Your task to perform on an android device: Open Google Maps Image 0: 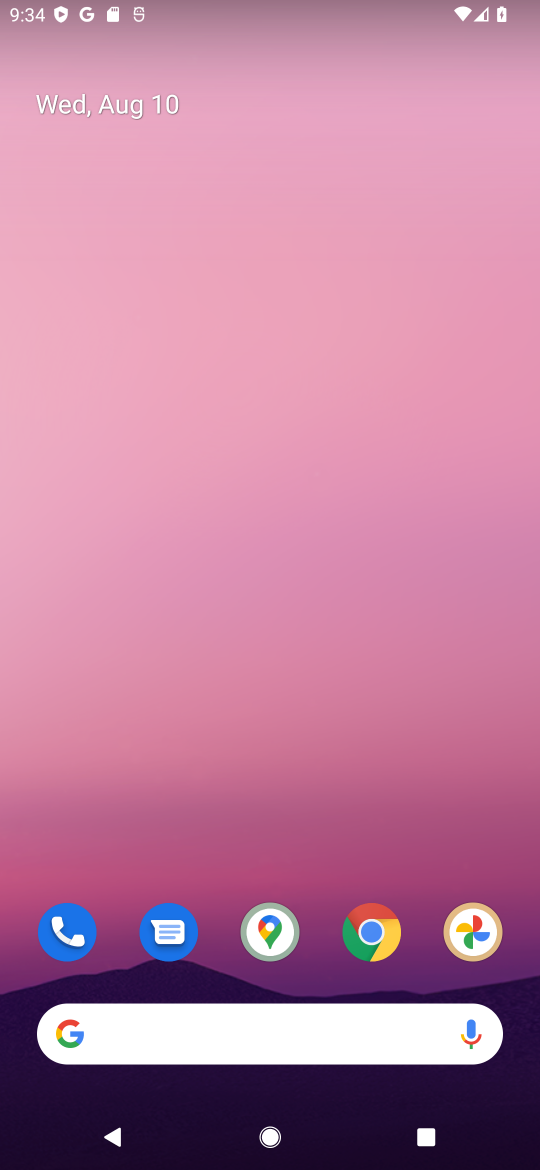
Step 0: click (270, 925)
Your task to perform on an android device: Open Google Maps Image 1: 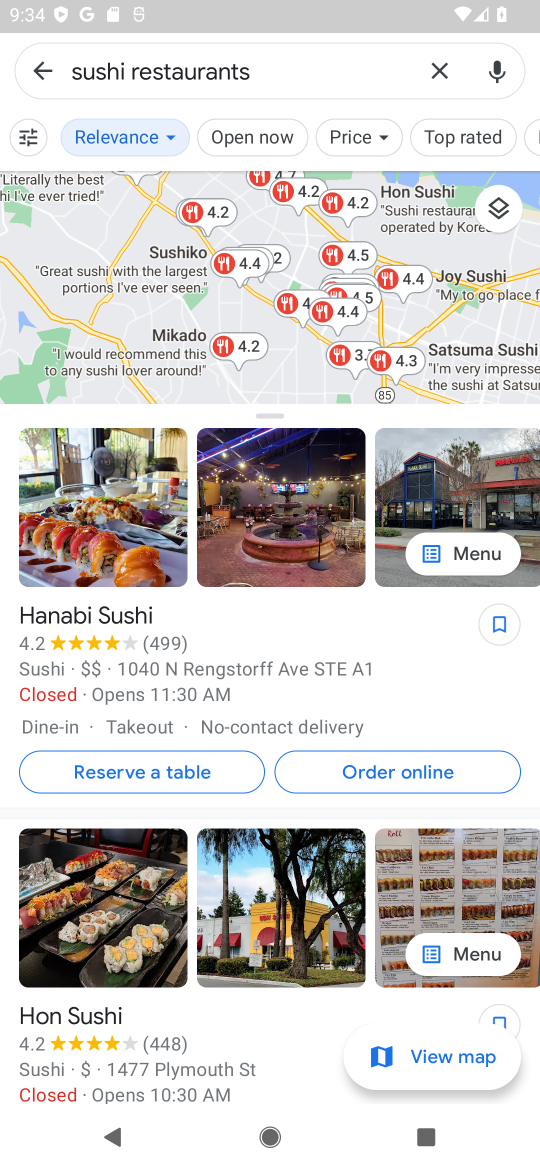
Step 1: click (35, 64)
Your task to perform on an android device: Open Google Maps Image 2: 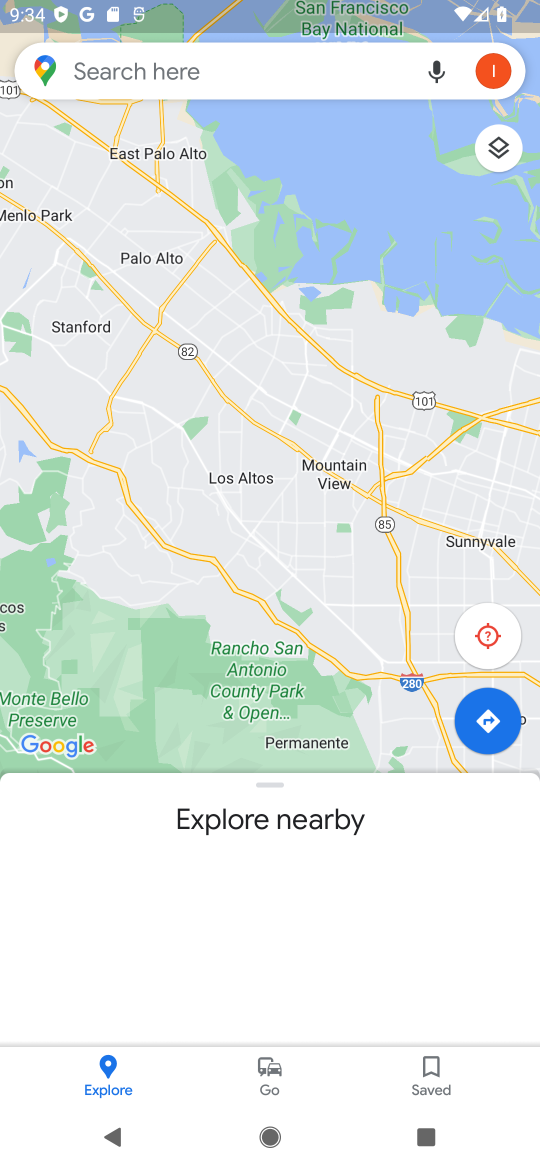
Step 2: task complete